Your task to perform on an android device: Open network settings Image 0: 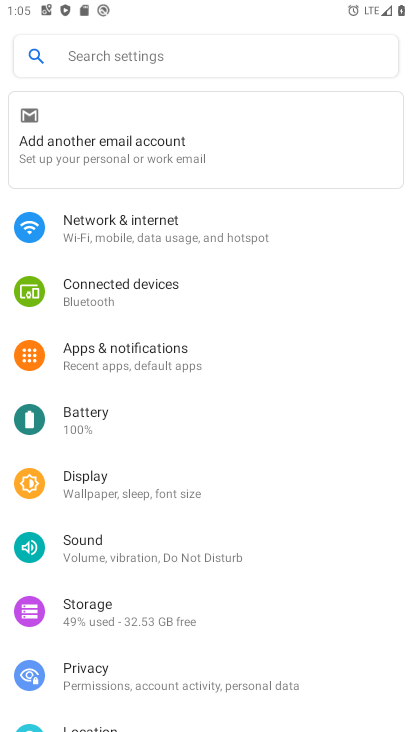
Step 0: press home button
Your task to perform on an android device: Open network settings Image 1: 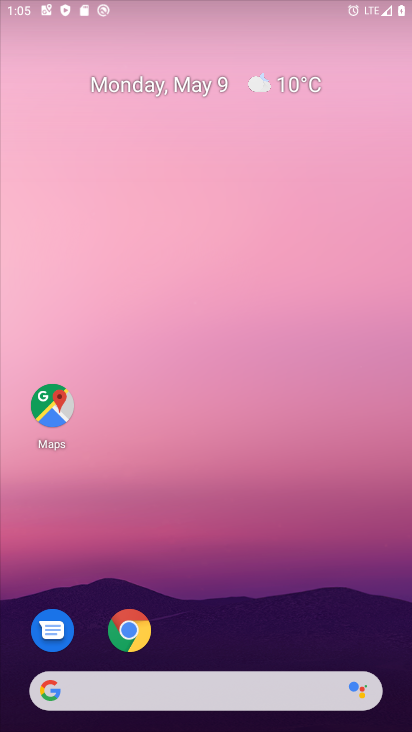
Step 1: drag from (344, 628) to (169, 49)
Your task to perform on an android device: Open network settings Image 2: 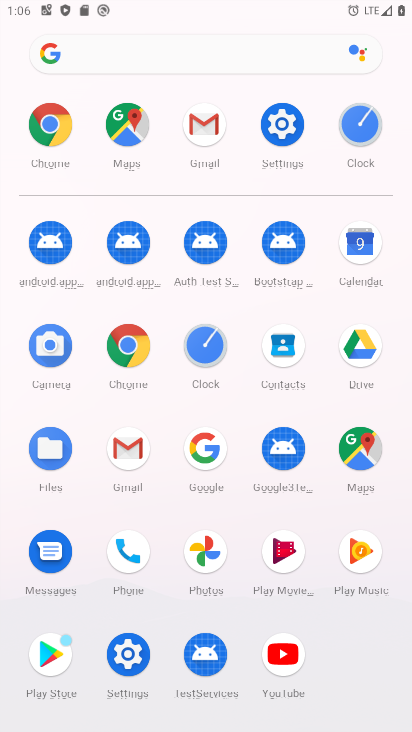
Step 2: click (119, 676)
Your task to perform on an android device: Open network settings Image 3: 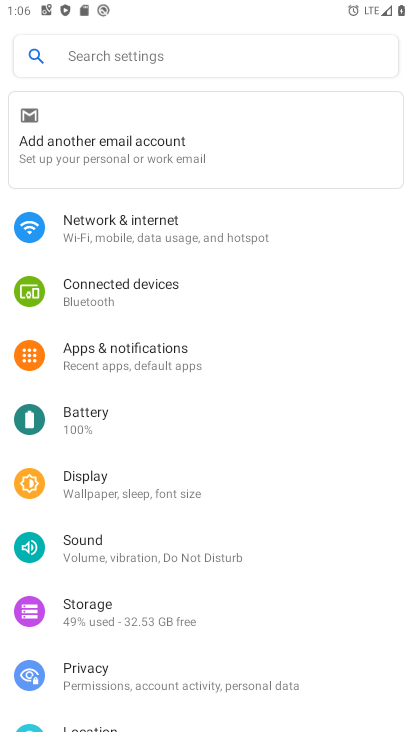
Step 3: click (138, 250)
Your task to perform on an android device: Open network settings Image 4: 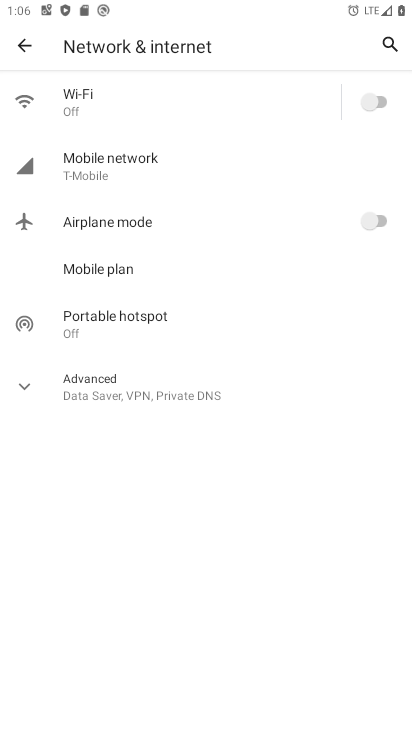
Step 4: task complete